Your task to perform on an android device: Open maps Image 0: 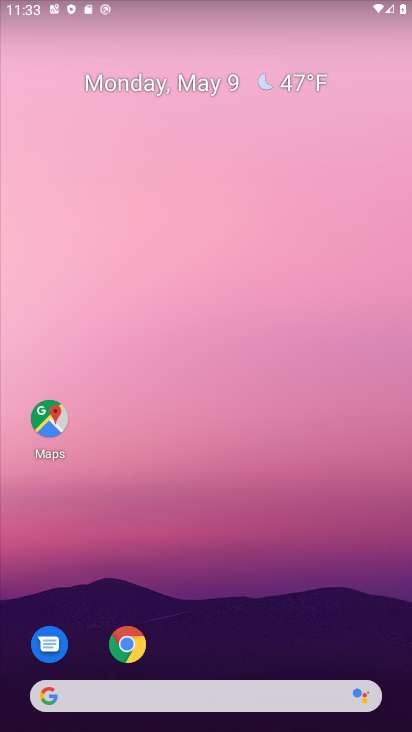
Step 0: click (59, 411)
Your task to perform on an android device: Open maps Image 1: 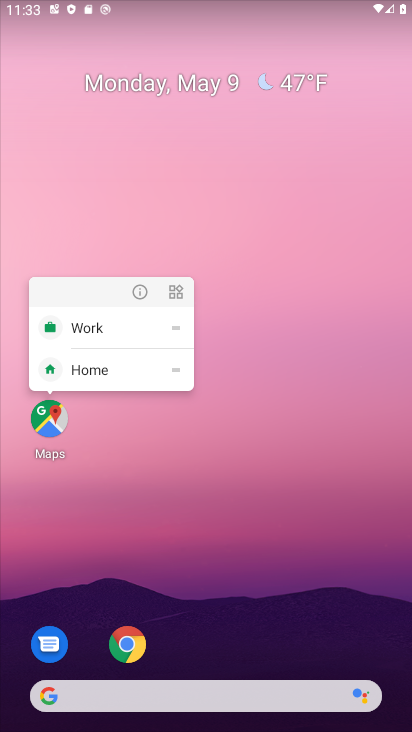
Step 1: click (40, 417)
Your task to perform on an android device: Open maps Image 2: 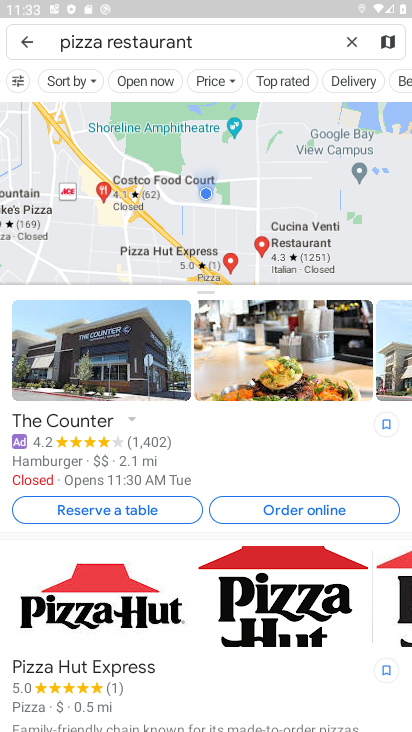
Step 2: task complete